Your task to perform on an android device: find photos in the google photos app Image 0: 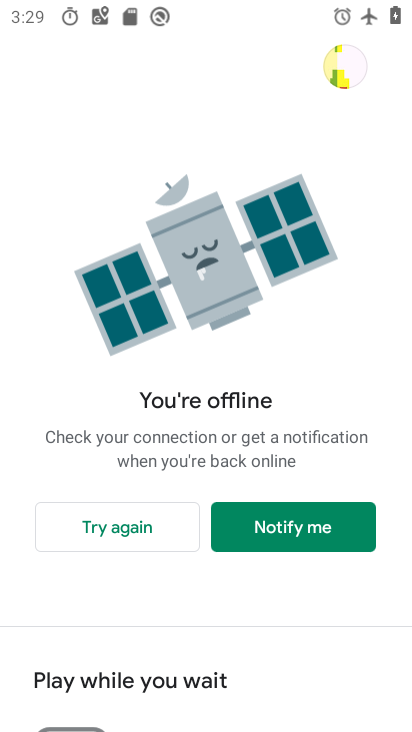
Step 0: press home button
Your task to perform on an android device: find photos in the google photos app Image 1: 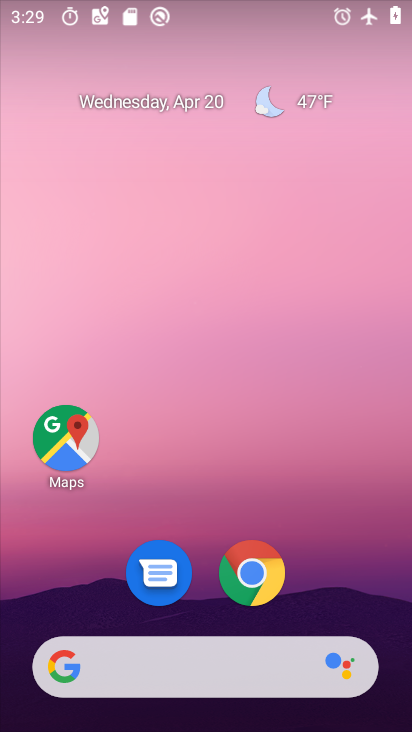
Step 1: drag from (206, 721) to (192, 128)
Your task to perform on an android device: find photos in the google photos app Image 2: 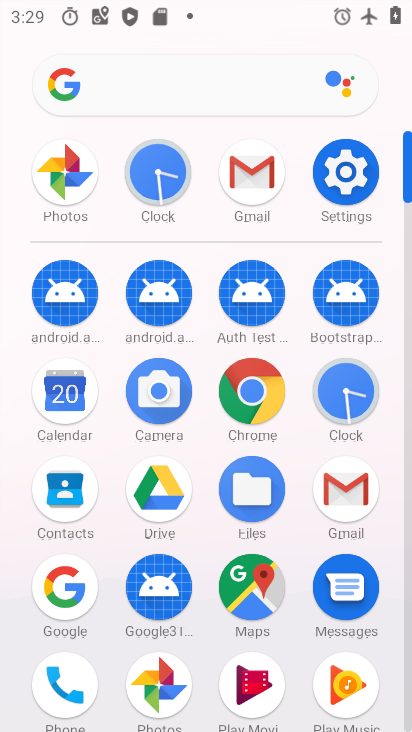
Step 2: click (67, 174)
Your task to perform on an android device: find photos in the google photos app Image 3: 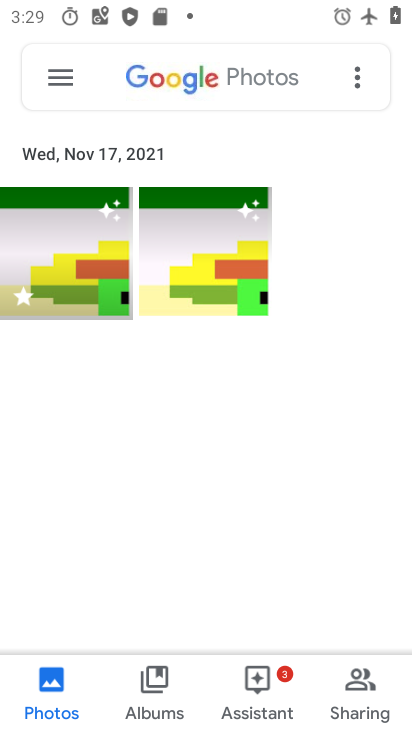
Step 3: click (72, 260)
Your task to perform on an android device: find photos in the google photos app Image 4: 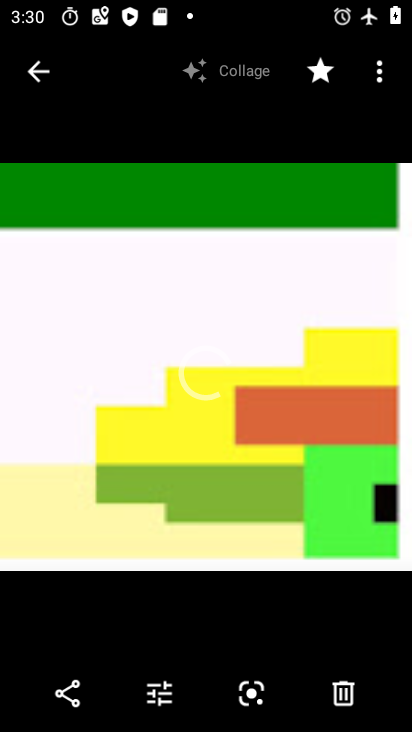
Step 4: task complete